Your task to perform on an android device: manage bookmarks in the chrome app Image 0: 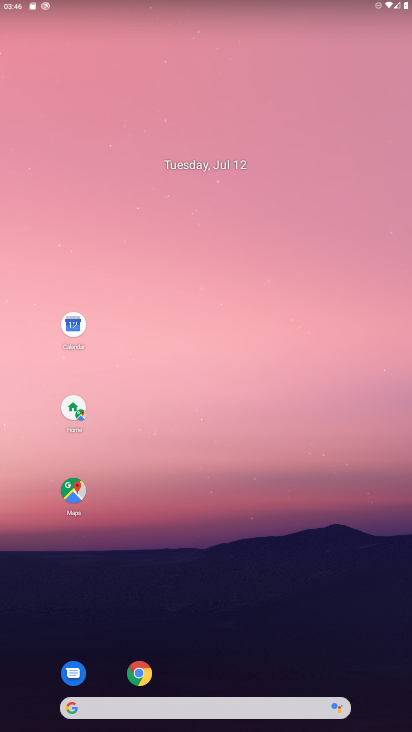
Step 0: drag from (148, 612) to (197, 241)
Your task to perform on an android device: manage bookmarks in the chrome app Image 1: 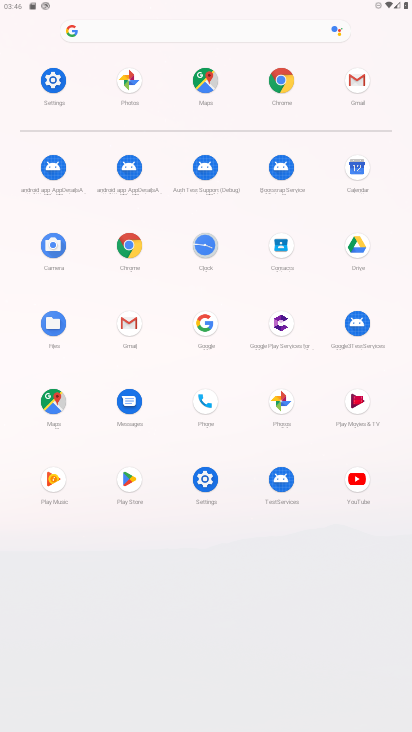
Step 1: click (280, 74)
Your task to perform on an android device: manage bookmarks in the chrome app Image 2: 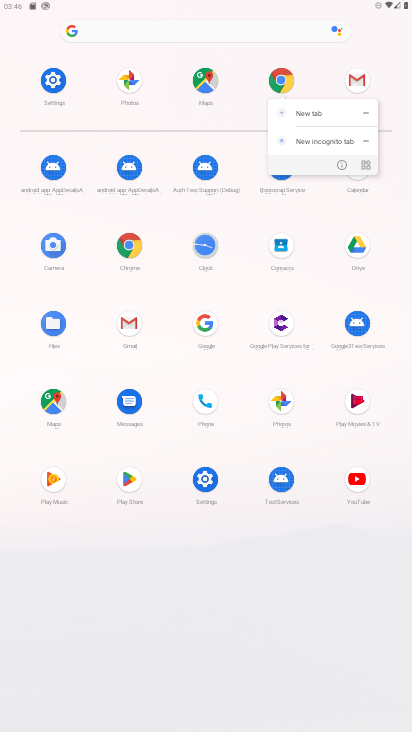
Step 2: click (273, 81)
Your task to perform on an android device: manage bookmarks in the chrome app Image 3: 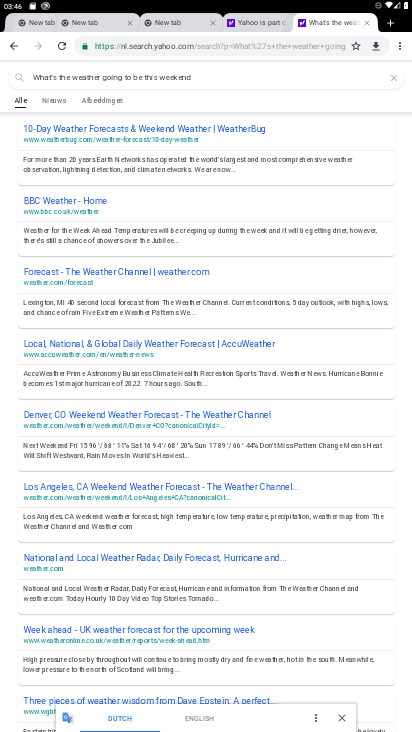
Step 3: click (398, 42)
Your task to perform on an android device: manage bookmarks in the chrome app Image 4: 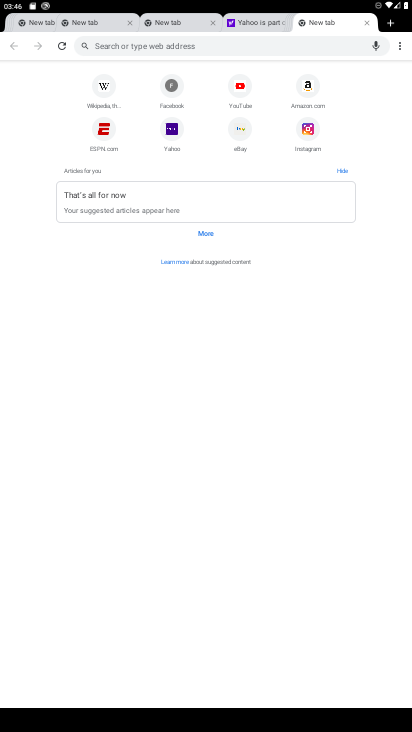
Step 4: click (406, 44)
Your task to perform on an android device: manage bookmarks in the chrome app Image 5: 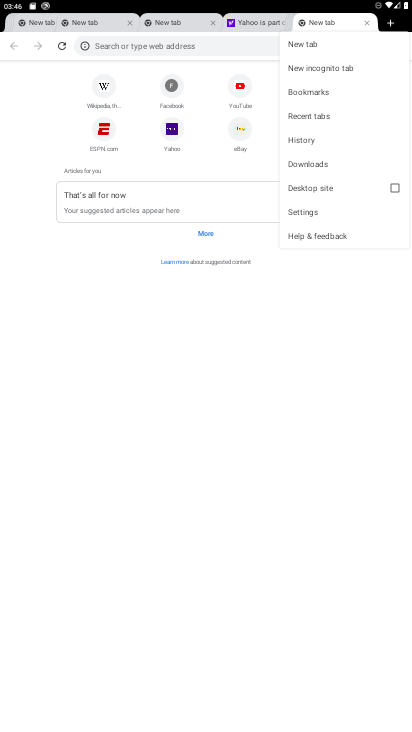
Step 5: click (322, 91)
Your task to perform on an android device: manage bookmarks in the chrome app Image 6: 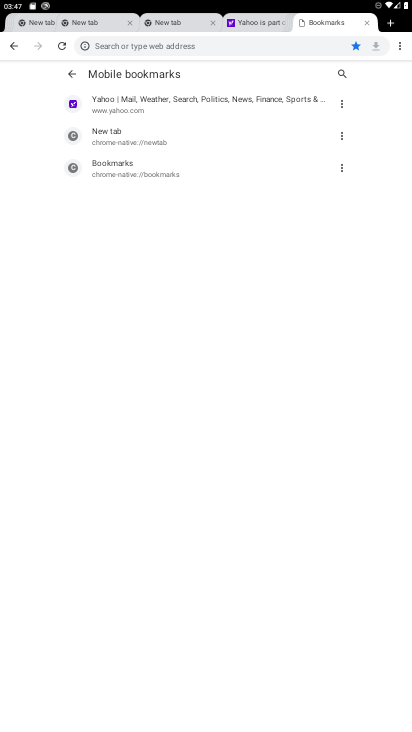
Step 6: click (145, 109)
Your task to perform on an android device: manage bookmarks in the chrome app Image 7: 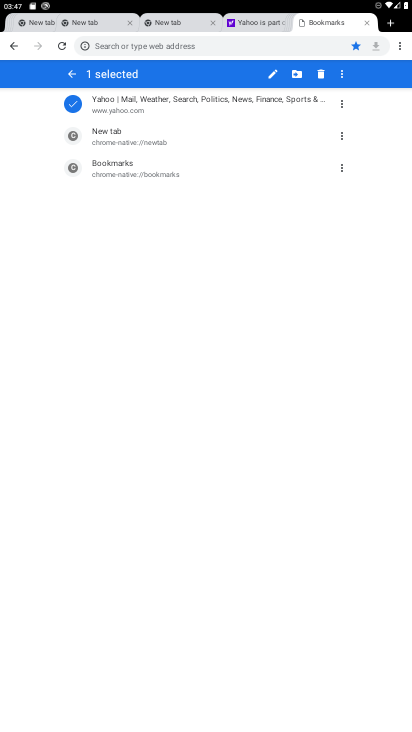
Step 7: click (291, 74)
Your task to perform on an android device: manage bookmarks in the chrome app Image 8: 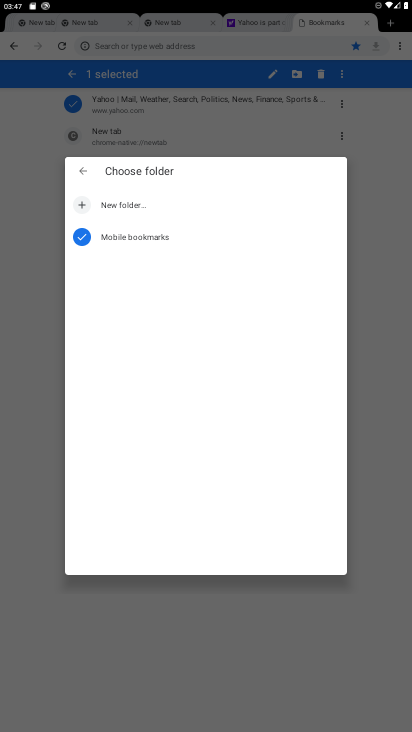
Step 8: click (129, 212)
Your task to perform on an android device: manage bookmarks in the chrome app Image 9: 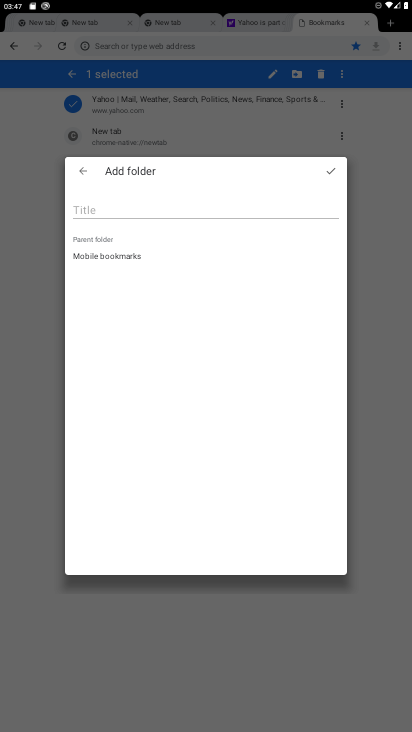
Step 9: click (126, 218)
Your task to perform on an android device: manage bookmarks in the chrome app Image 10: 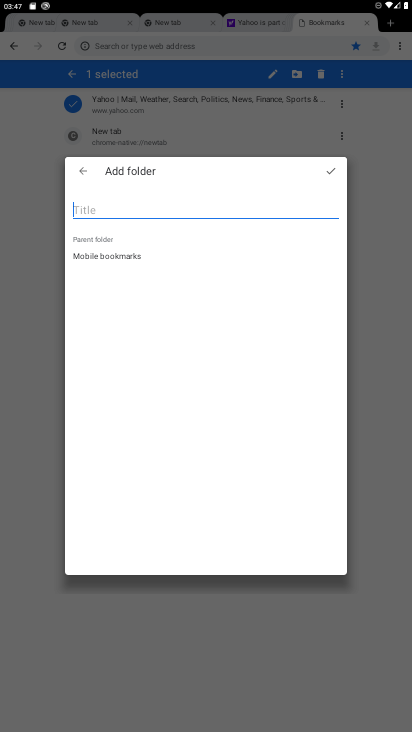
Step 10: click (151, 206)
Your task to perform on an android device: manage bookmarks in the chrome app Image 11: 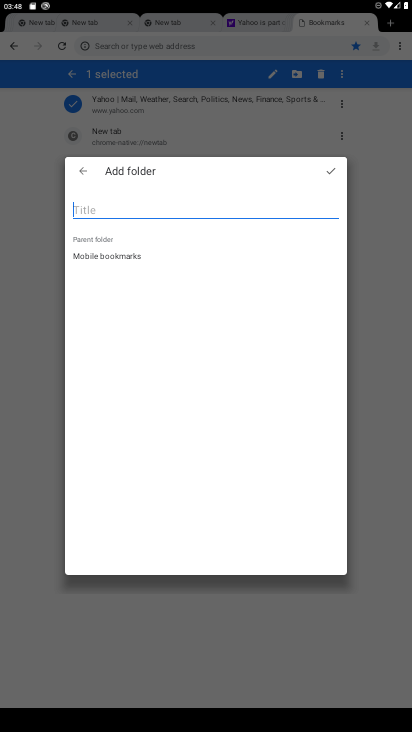
Step 11: type "877877788787788 "
Your task to perform on an android device: manage bookmarks in the chrome app Image 12: 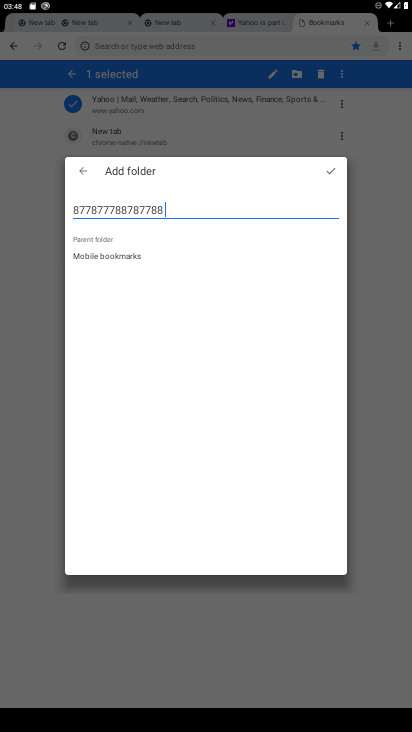
Step 12: click (319, 173)
Your task to perform on an android device: manage bookmarks in the chrome app Image 13: 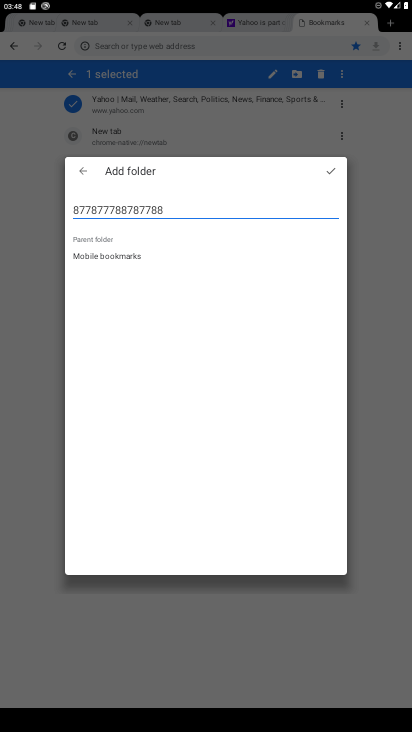
Step 13: click (322, 172)
Your task to perform on an android device: manage bookmarks in the chrome app Image 14: 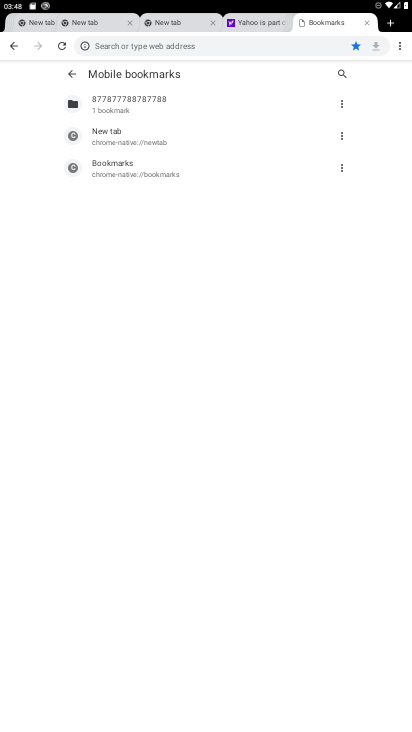
Step 14: task complete